Your task to perform on an android device: open a bookmark in the chrome app Image 0: 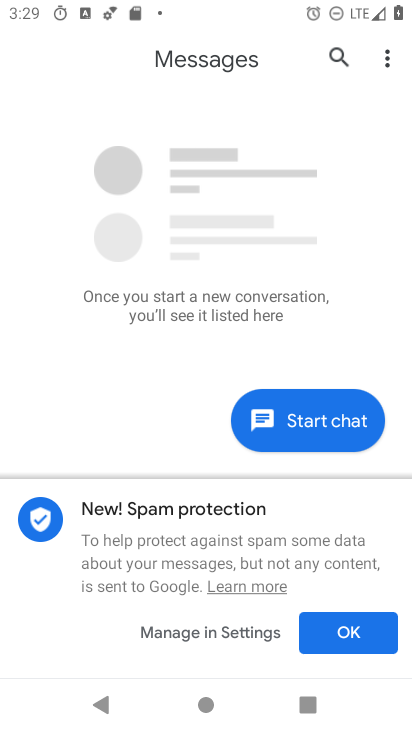
Step 0: press home button
Your task to perform on an android device: open a bookmark in the chrome app Image 1: 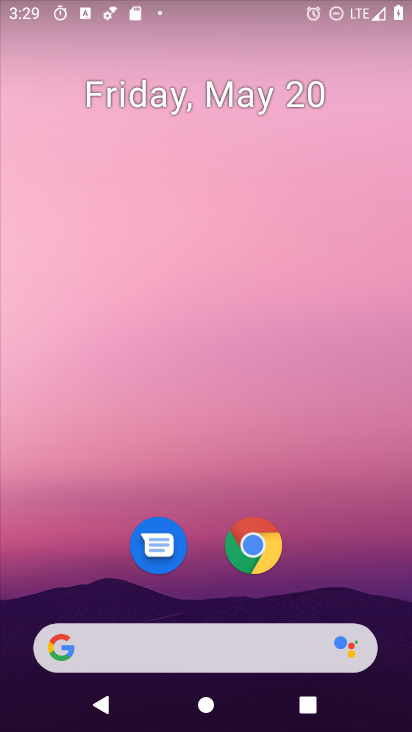
Step 1: drag from (221, 647) to (352, 9)
Your task to perform on an android device: open a bookmark in the chrome app Image 2: 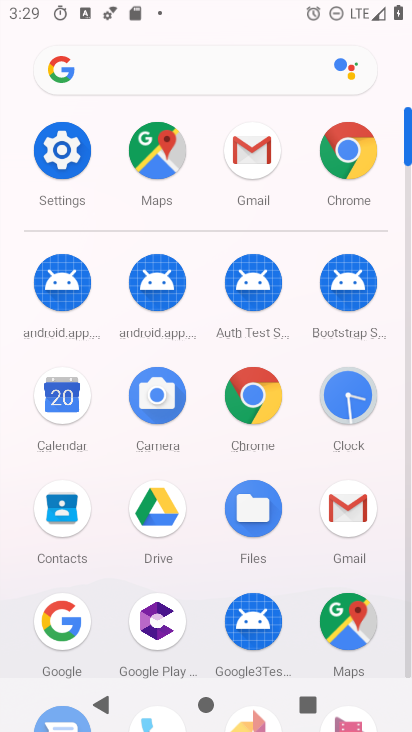
Step 2: click (259, 371)
Your task to perform on an android device: open a bookmark in the chrome app Image 3: 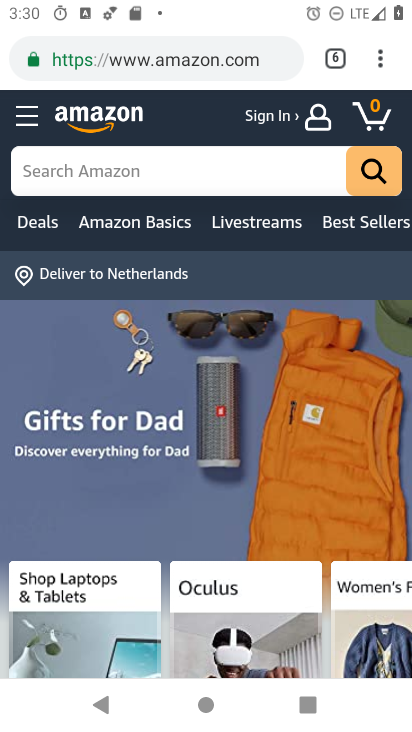
Step 3: click (380, 66)
Your task to perform on an android device: open a bookmark in the chrome app Image 4: 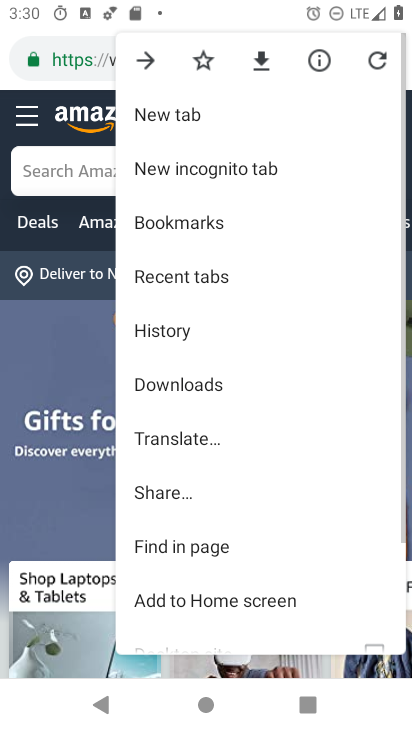
Step 4: click (214, 222)
Your task to perform on an android device: open a bookmark in the chrome app Image 5: 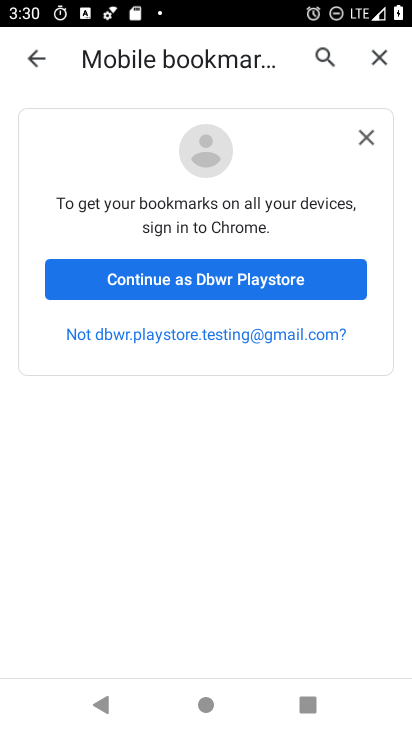
Step 5: task complete